Your task to perform on an android device: Go to network settings Image 0: 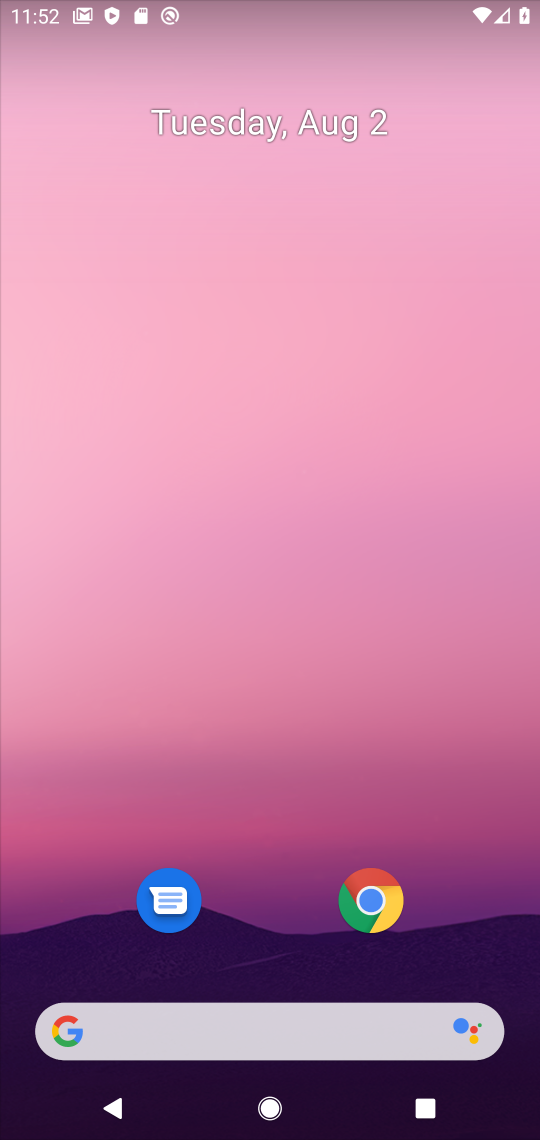
Step 0: drag from (349, 570) to (434, 222)
Your task to perform on an android device: Go to network settings Image 1: 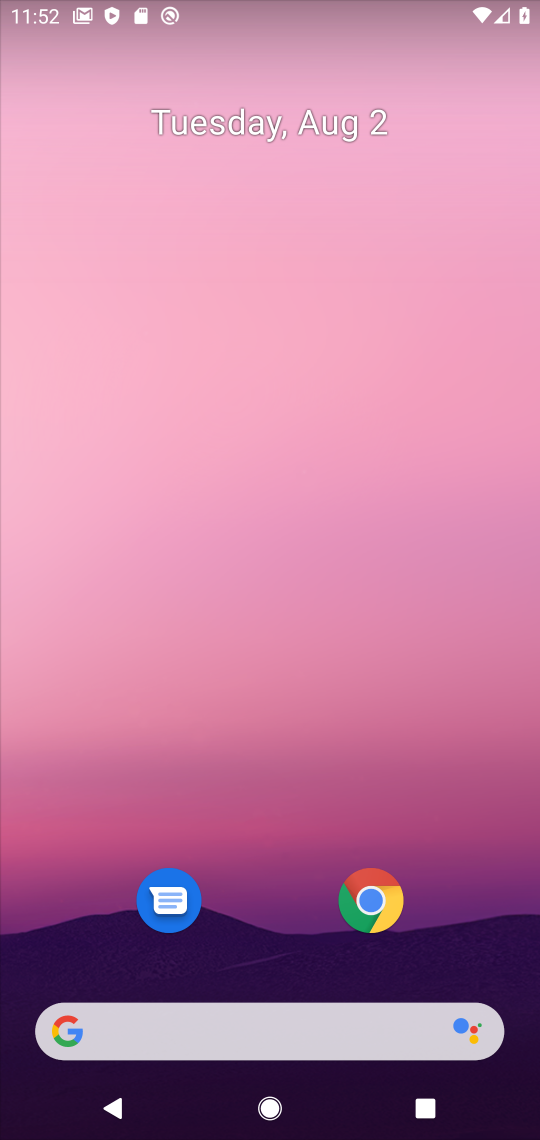
Step 1: drag from (251, 633) to (327, 160)
Your task to perform on an android device: Go to network settings Image 2: 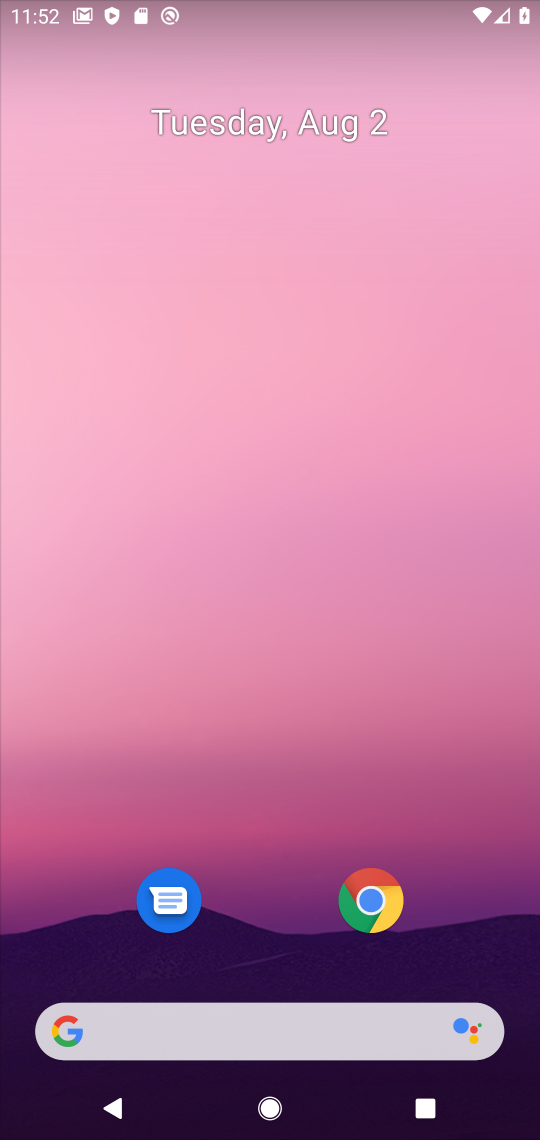
Step 2: drag from (249, 954) to (249, 3)
Your task to perform on an android device: Go to network settings Image 3: 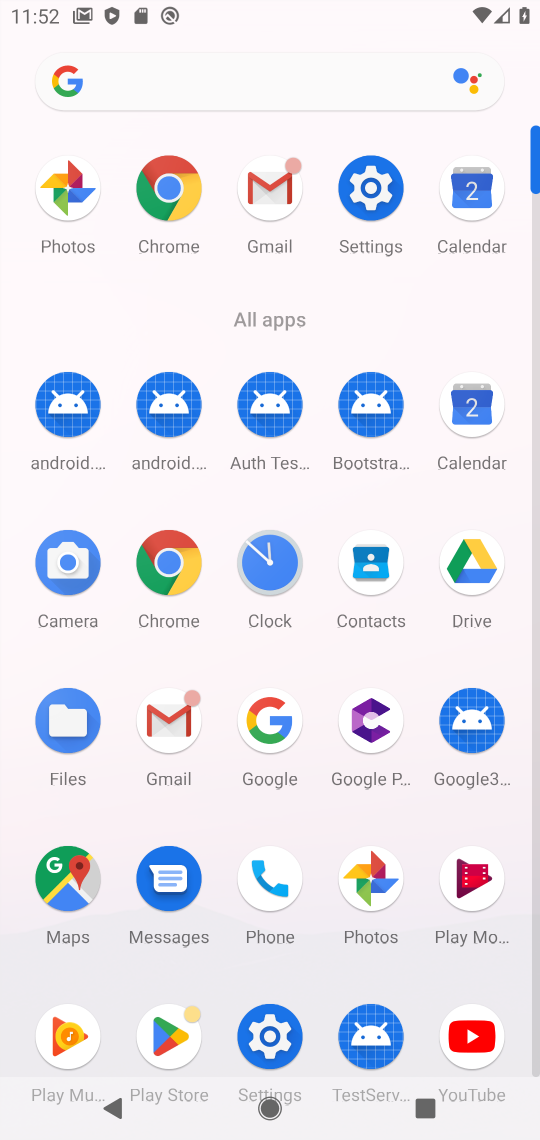
Step 3: click (363, 199)
Your task to perform on an android device: Go to network settings Image 4: 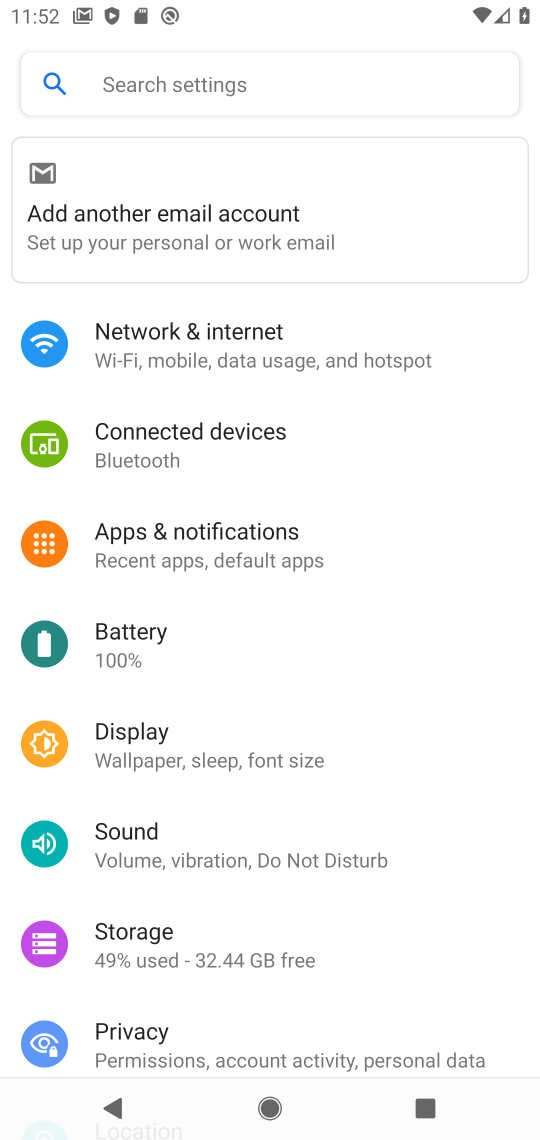
Step 4: click (257, 365)
Your task to perform on an android device: Go to network settings Image 5: 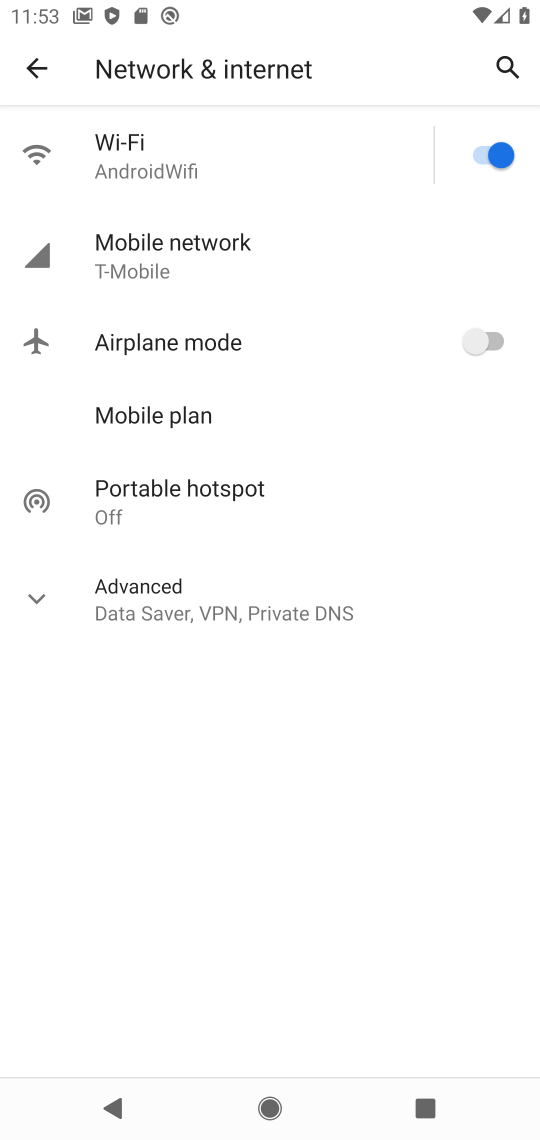
Step 5: task complete